Your task to perform on an android device: turn on wifi Image 0: 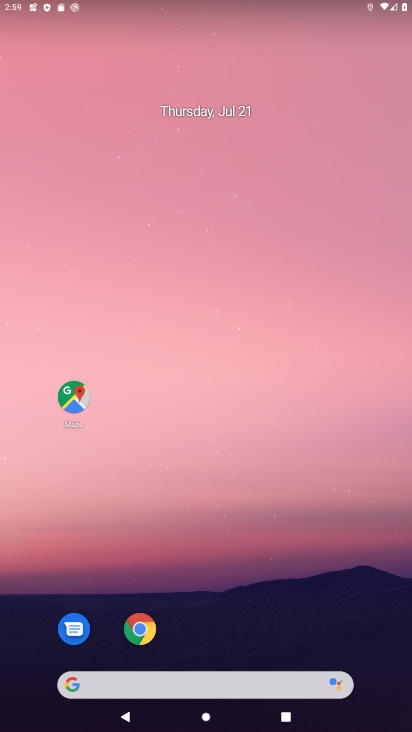
Step 0: click (262, 151)
Your task to perform on an android device: turn on wifi Image 1: 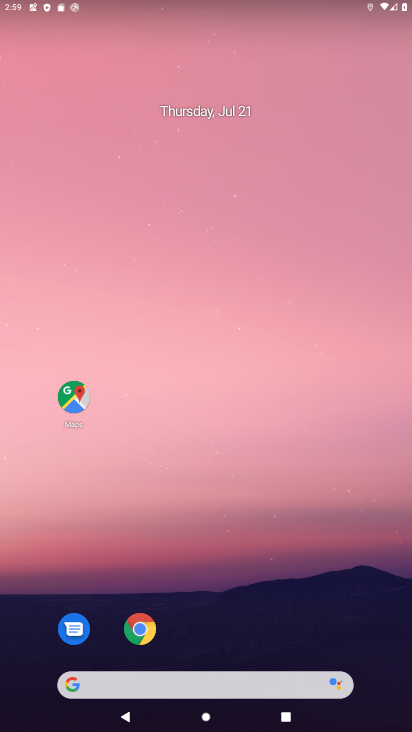
Step 1: click (229, 12)
Your task to perform on an android device: turn on wifi Image 2: 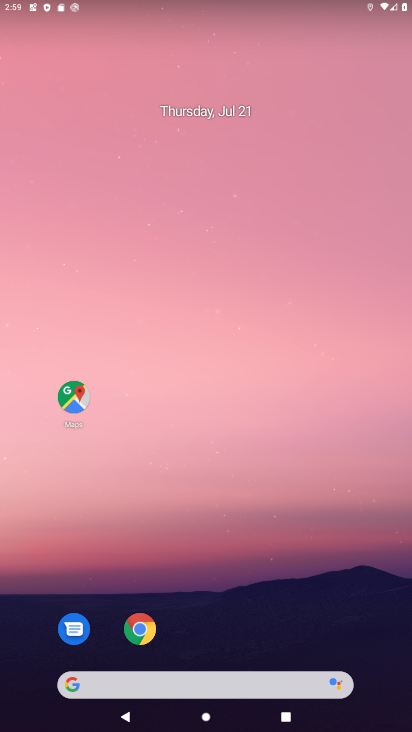
Step 2: drag from (200, 330) to (408, 385)
Your task to perform on an android device: turn on wifi Image 3: 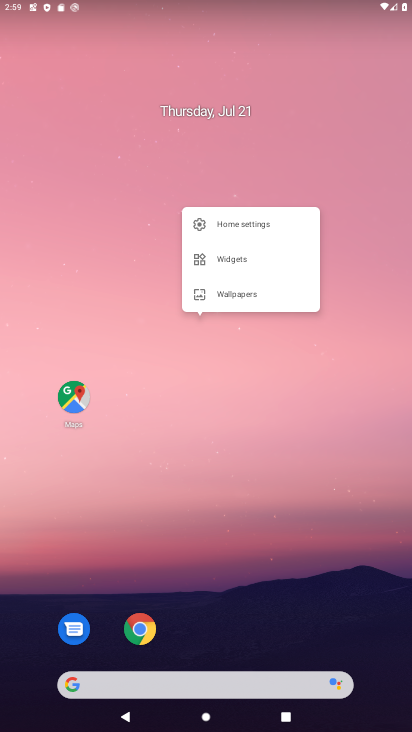
Step 3: drag from (287, 231) to (300, 32)
Your task to perform on an android device: turn on wifi Image 4: 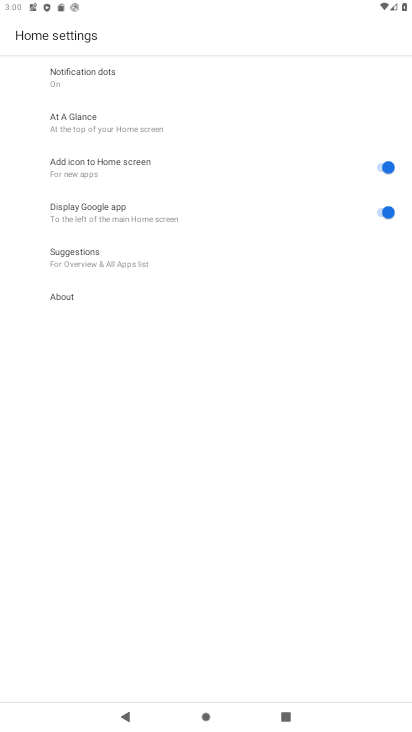
Step 4: click (237, 468)
Your task to perform on an android device: turn on wifi Image 5: 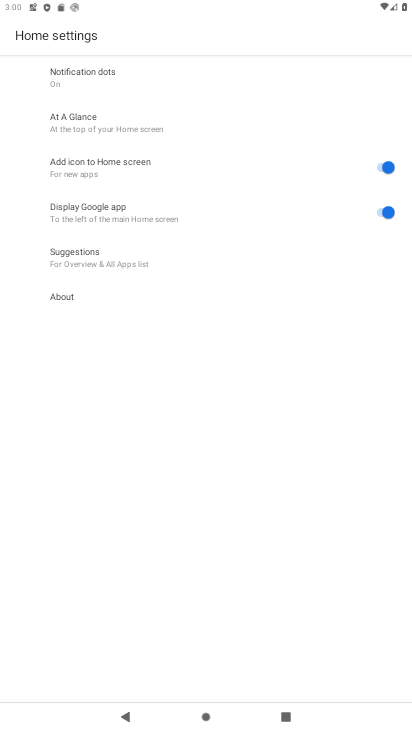
Step 5: drag from (242, 116) to (253, 542)
Your task to perform on an android device: turn on wifi Image 6: 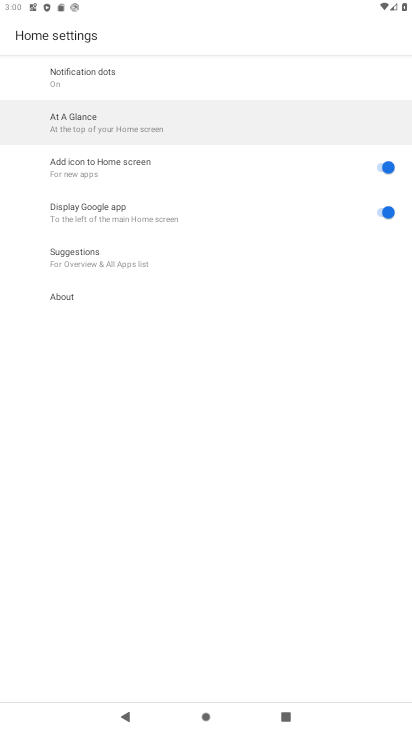
Step 6: drag from (277, 300) to (286, 208)
Your task to perform on an android device: turn on wifi Image 7: 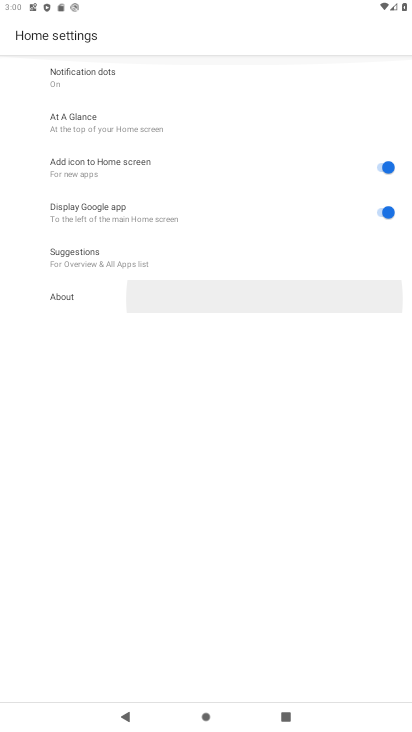
Step 7: press home button
Your task to perform on an android device: turn on wifi Image 8: 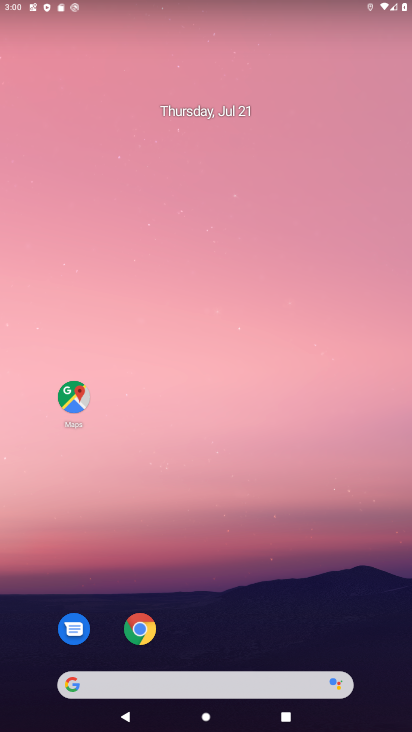
Step 8: drag from (221, 632) to (245, 34)
Your task to perform on an android device: turn on wifi Image 9: 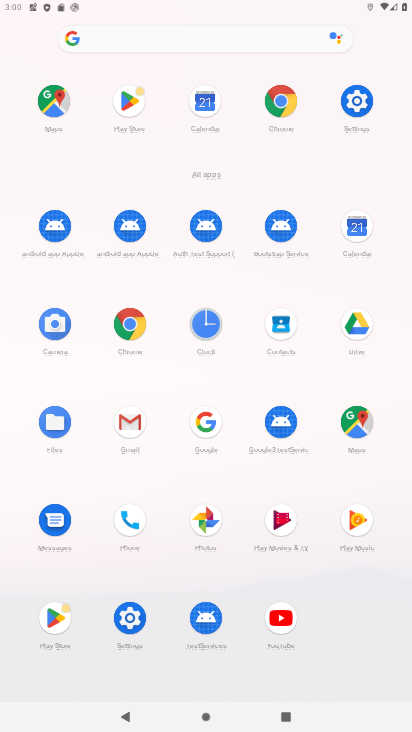
Step 9: click (367, 119)
Your task to perform on an android device: turn on wifi Image 10: 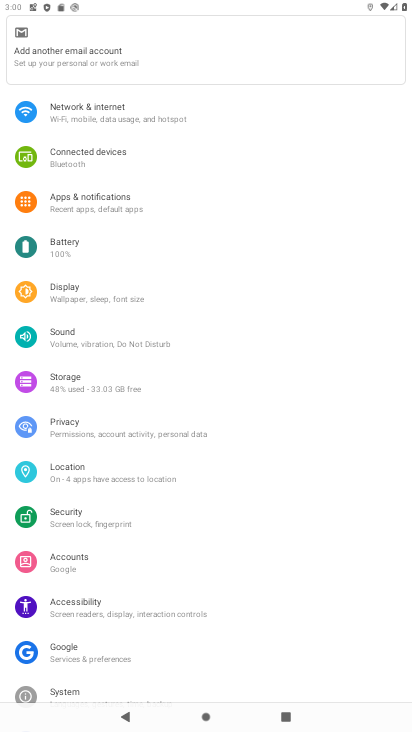
Step 10: click (107, 117)
Your task to perform on an android device: turn on wifi Image 11: 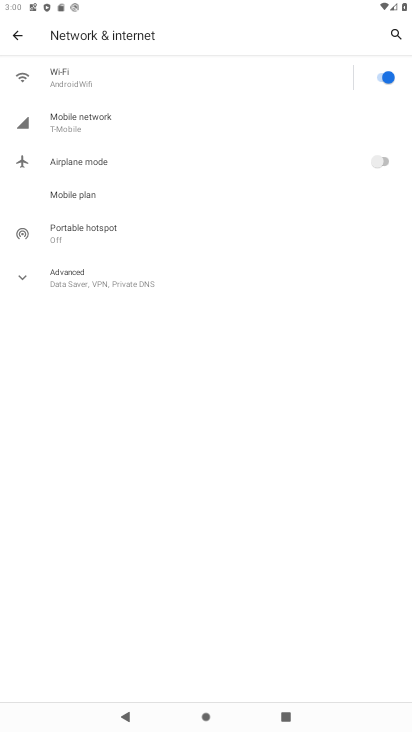
Step 11: task complete